Your task to perform on an android device: delete a single message in the gmail app Image 0: 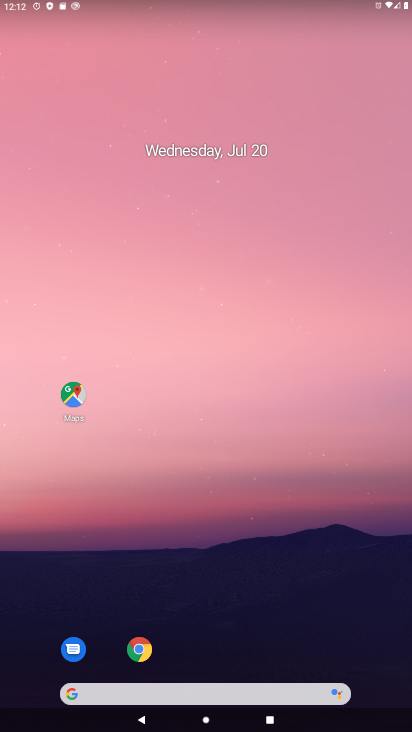
Step 0: press home button
Your task to perform on an android device: delete a single message in the gmail app Image 1: 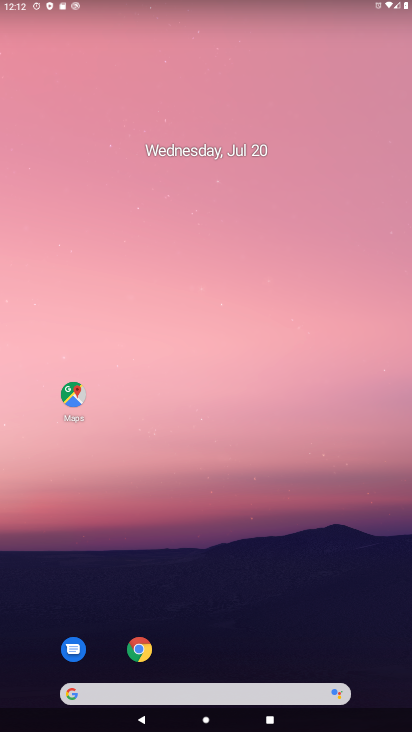
Step 1: drag from (227, 721) to (230, 407)
Your task to perform on an android device: delete a single message in the gmail app Image 2: 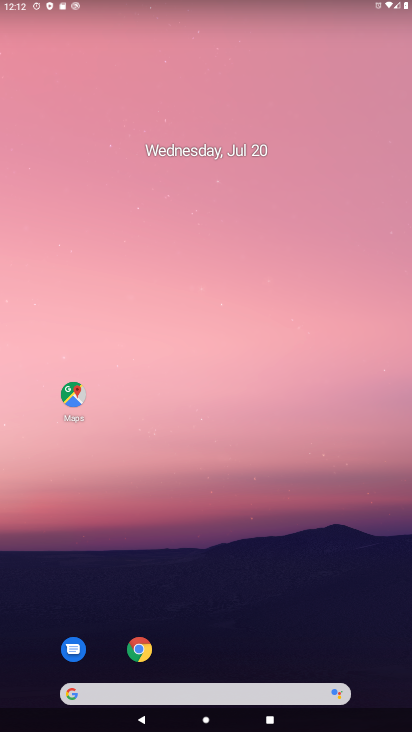
Step 2: drag from (222, 719) to (225, 327)
Your task to perform on an android device: delete a single message in the gmail app Image 3: 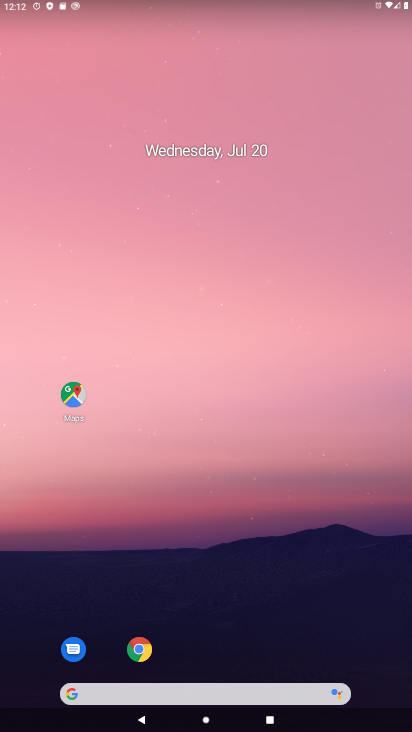
Step 3: drag from (234, 730) to (268, 219)
Your task to perform on an android device: delete a single message in the gmail app Image 4: 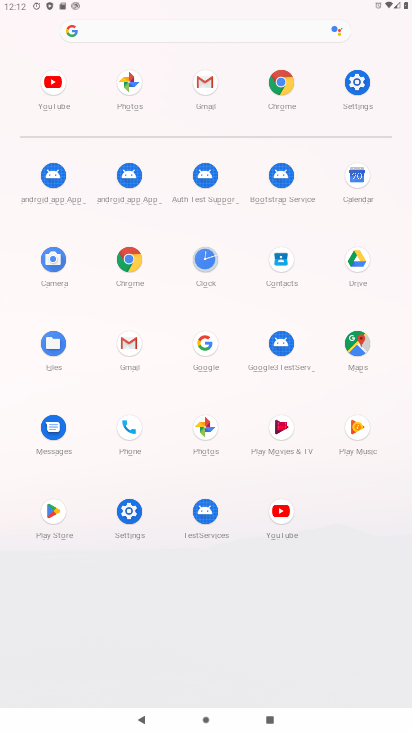
Step 4: click (132, 344)
Your task to perform on an android device: delete a single message in the gmail app Image 5: 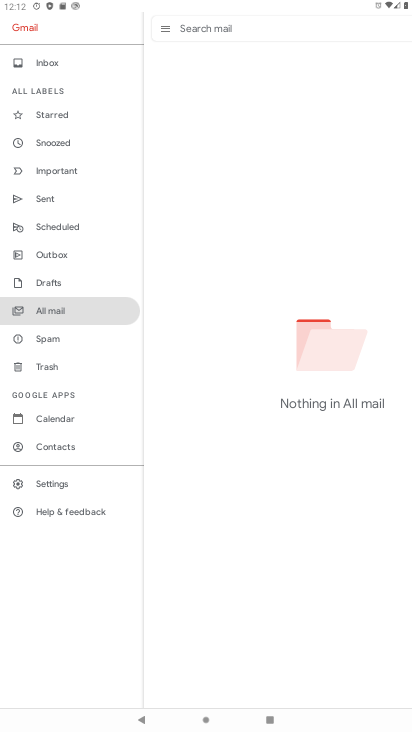
Step 5: click (44, 55)
Your task to perform on an android device: delete a single message in the gmail app Image 6: 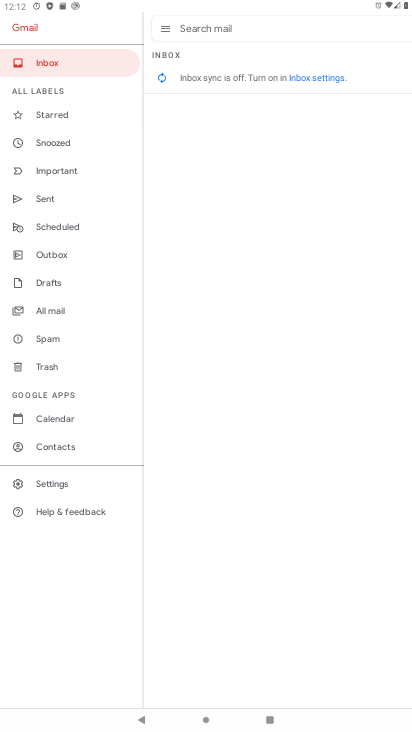
Step 6: task complete